Your task to perform on an android device: Open wifi settings Image 0: 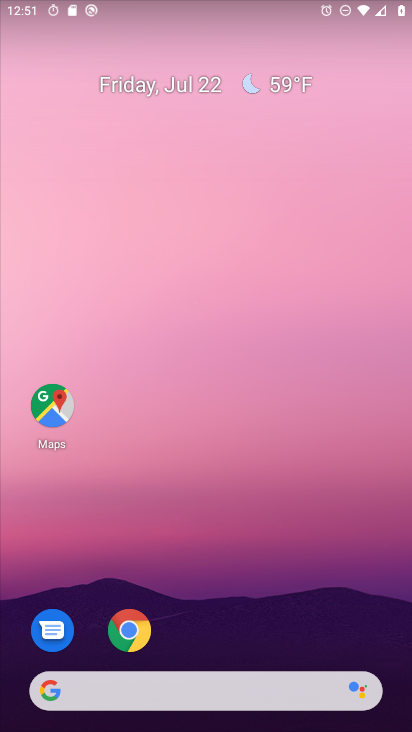
Step 0: press home button
Your task to perform on an android device: Open wifi settings Image 1: 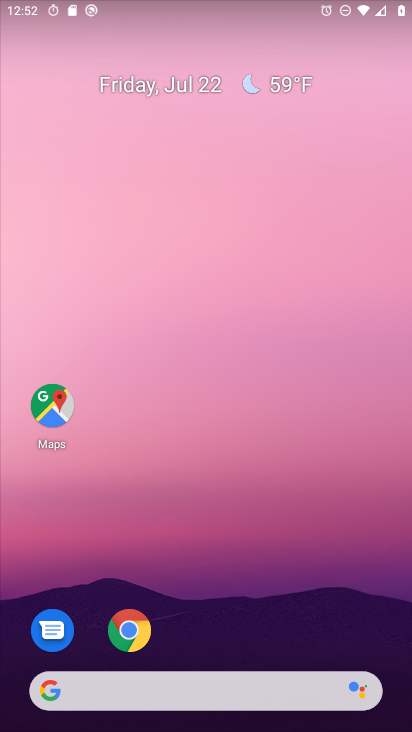
Step 1: drag from (224, 627) to (224, 94)
Your task to perform on an android device: Open wifi settings Image 2: 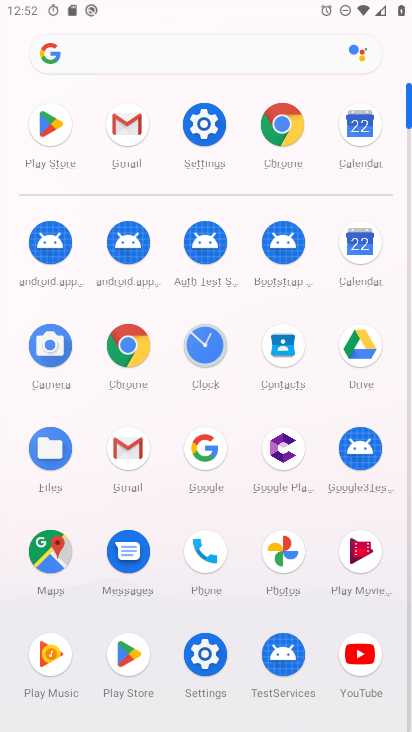
Step 2: click (189, 127)
Your task to perform on an android device: Open wifi settings Image 3: 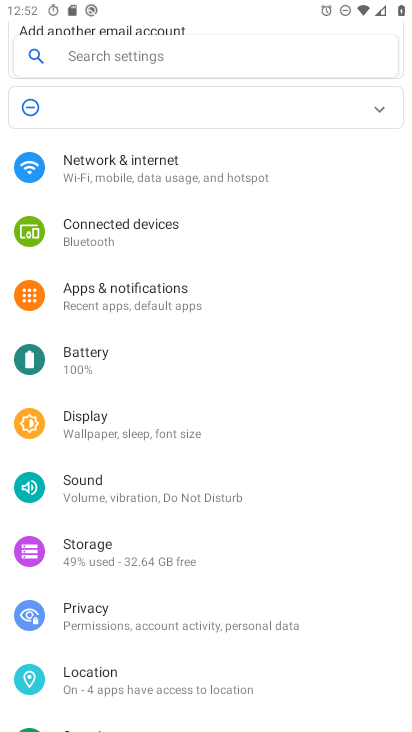
Step 3: click (97, 179)
Your task to perform on an android device: Open wifi settings Image 4: 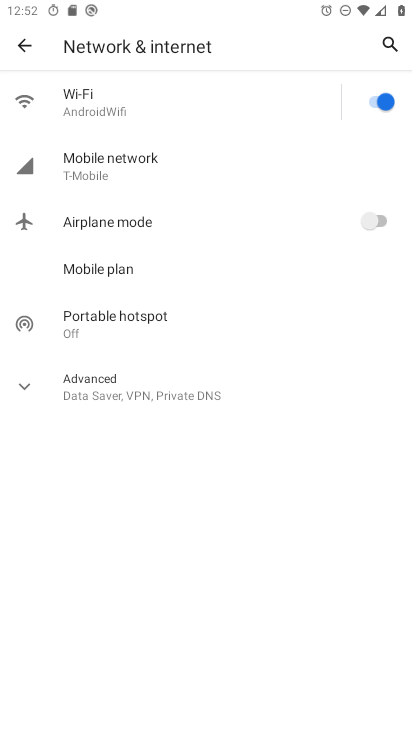
Step 4: click (82, 103)
Your task to perform on an android device: Open wifi settings Image 5: 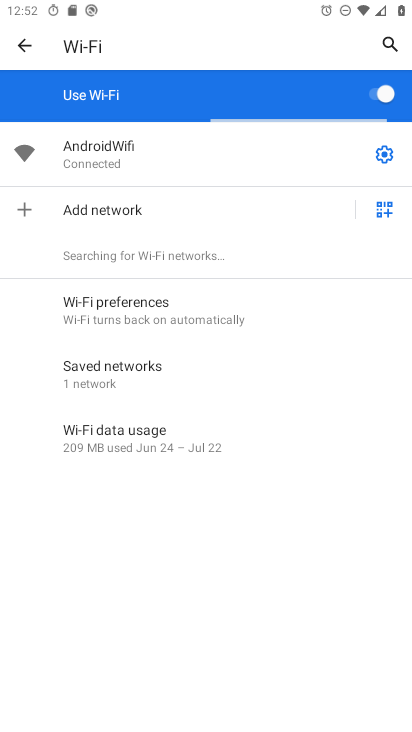
Step 5: task complete